Your task to perform on an android device: all mails in gmail Image 0: 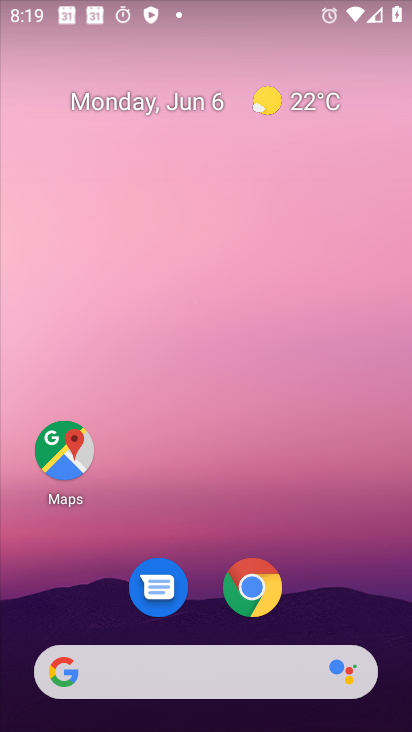
Step 0: drag from (163, 656) to (109, 249)
Your task to perform on an android device: all mails in gmail Image 1: 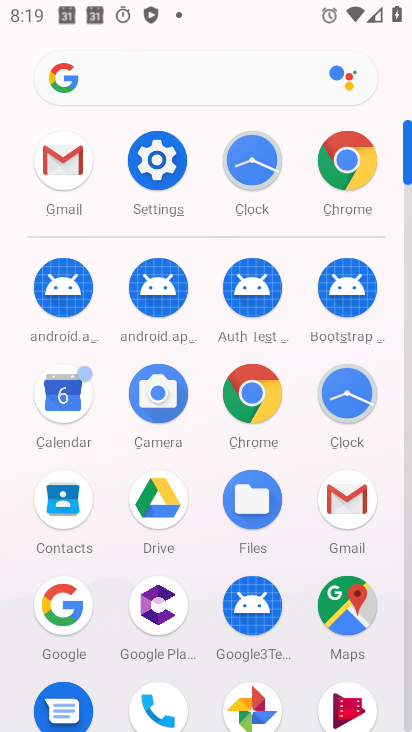
Step 1: click (45, 171)
Your task to perform on an android device: all mails in gmail Image 2: 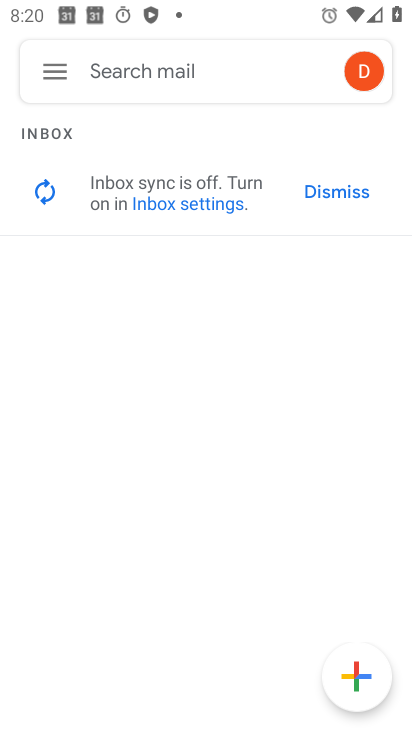
Step 2: click (46, 77)
Your task to perform on an android device: all mails in gmail Image 3: 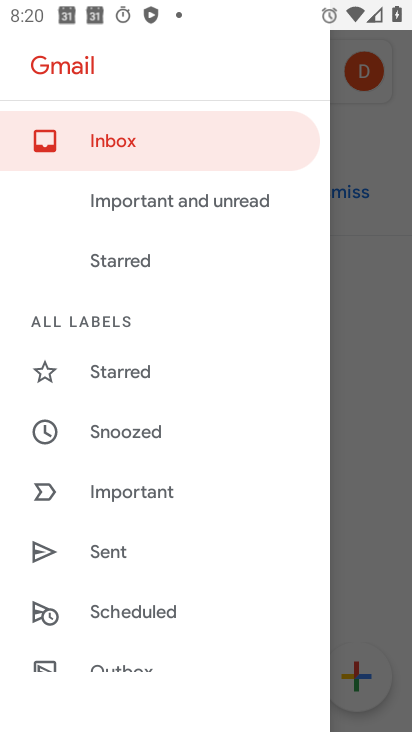
Step 3: drag from (129, 677) to (119, 318)
Your task to perform on an android device: all mails in gmail Image 4: 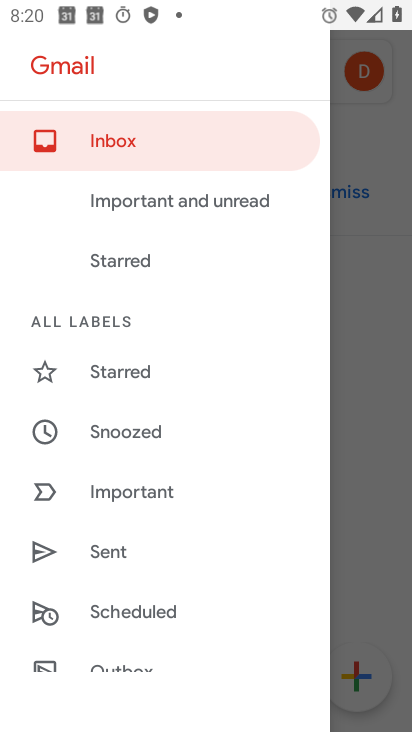
Step 4: drag from (133, 642) to (113, 273)
Your task to perform on an android device: all mails in gmail Image 5: 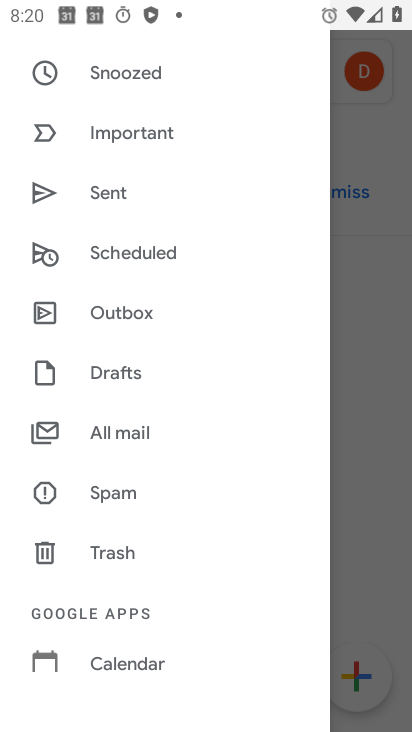
Step 5: click (134, 415)
Your task to perform on an android device: all mails in gmail Image 6: 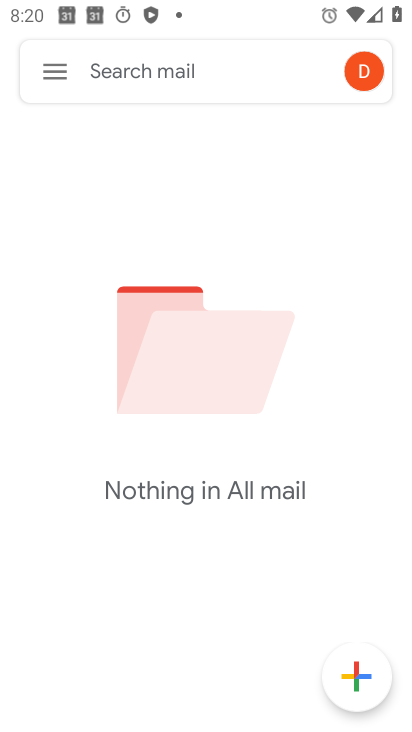
Step 6: task complete